Your task to perform on an android device: change the clock display to analog Image 0: 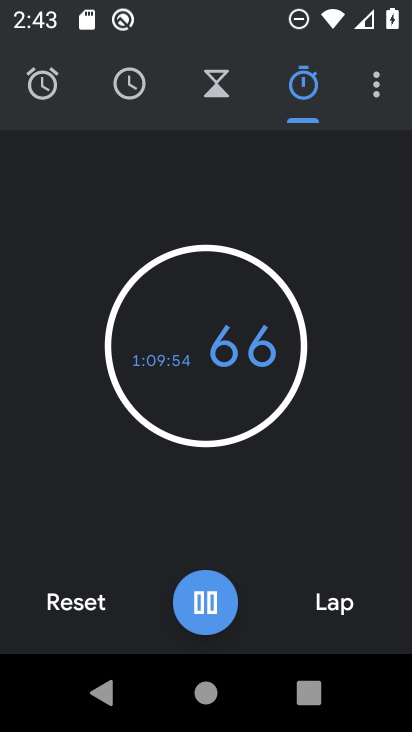
Step 0: click (370, 83)
Your task to perform on an android device: change the clock display to analog Image 1: 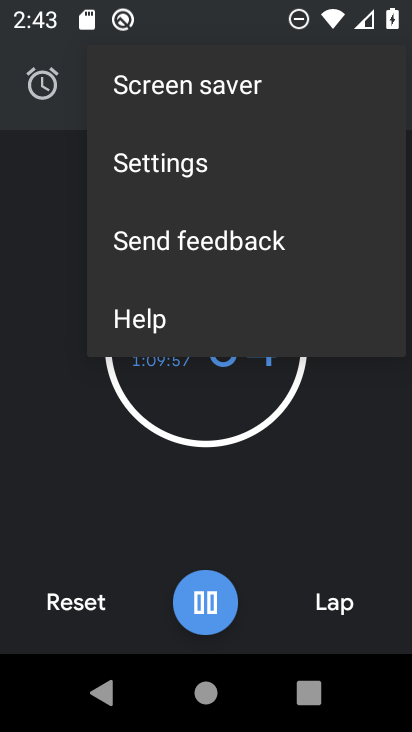
Step 1: click (166, 164)
Your task to perform on an android device: change the clock display to analog Image 2: 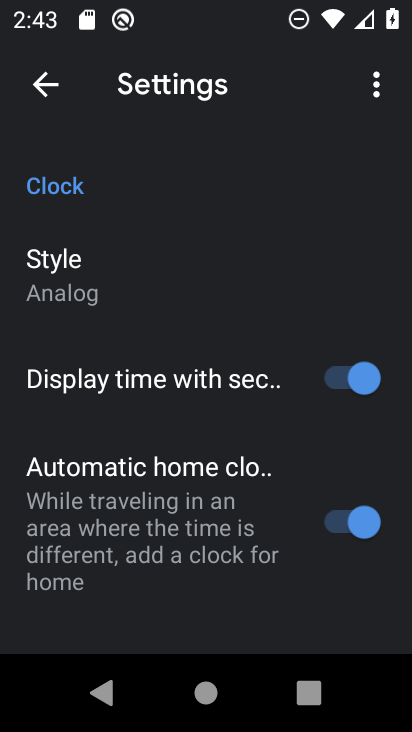
Step 2: click (62, 283)
Your task to perform on an android device: change the clock display to analog Image 3: 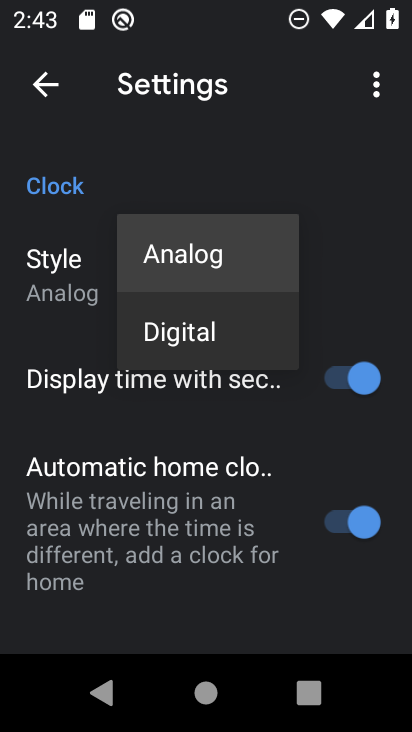
Step 3: task complete